Your task to perform on an android device: toggle javascript in the chrome app Image 0: 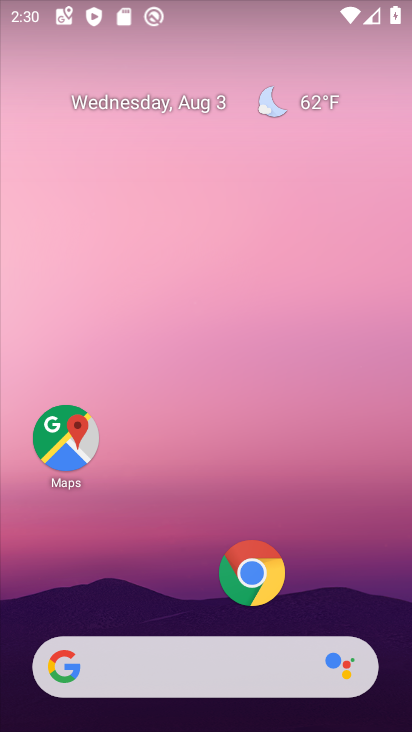
Step 0: click (261, 569)
Your task to perform on an android device: toggle javascript in the chrome app Image 1: 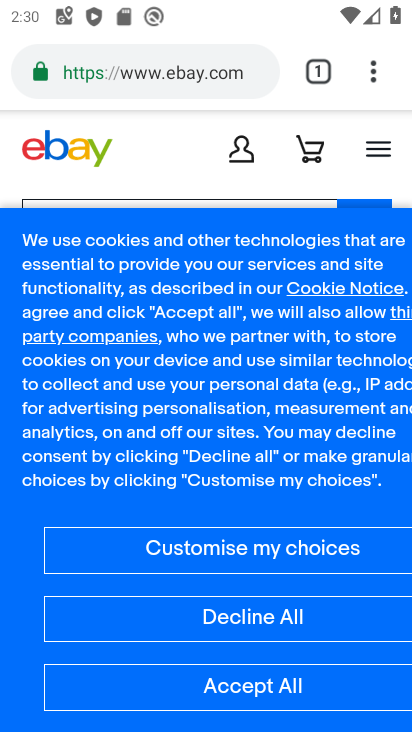
Step 1: click (373, 74)
Your task to perform on an android device: toggle javascript in the chrome app Image 2: 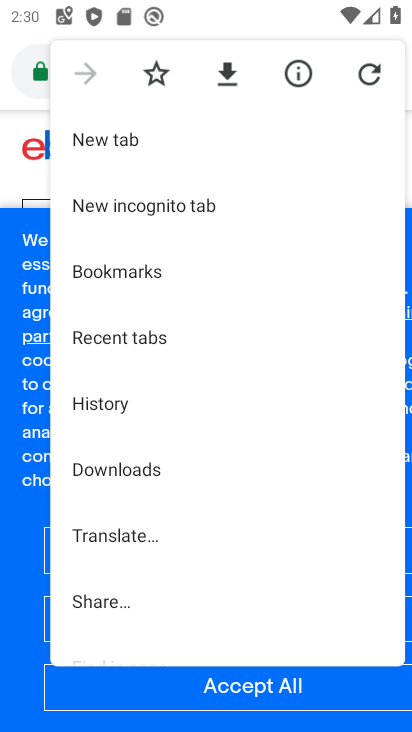
Step 2: drag from (138, 573) to (147, 311)
Your task to perform on an android device: toggle javascript in the chrome app Image 3: 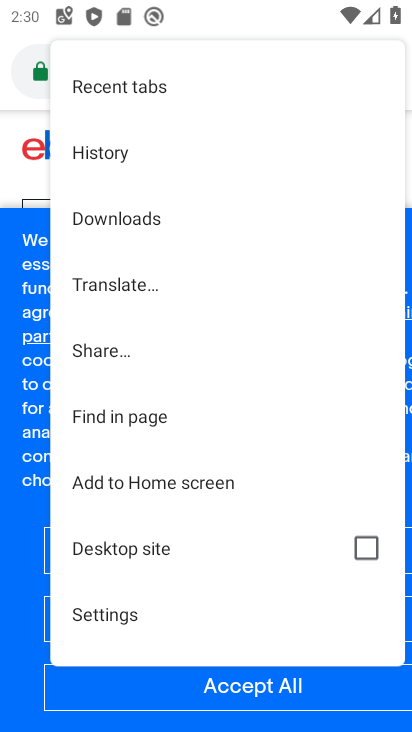
Step 3: click (134, 619)
Your task to perform on an android device: toggle javascript in the chrome app Image 4: 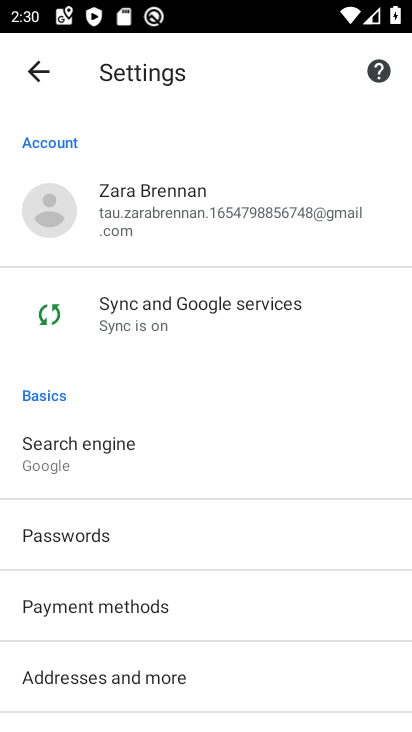
Step 4: drag from (174, 517) to (207, 213)
Your task to perform on an android device: toggle javascript in the chrome app Image 5: 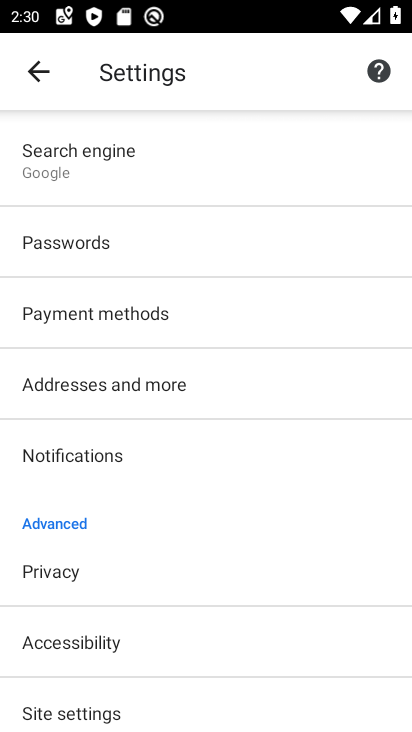
Step 5: click (85, 713)
Your task to perform on an android device: toggle javascript in the chrome app Image 6: 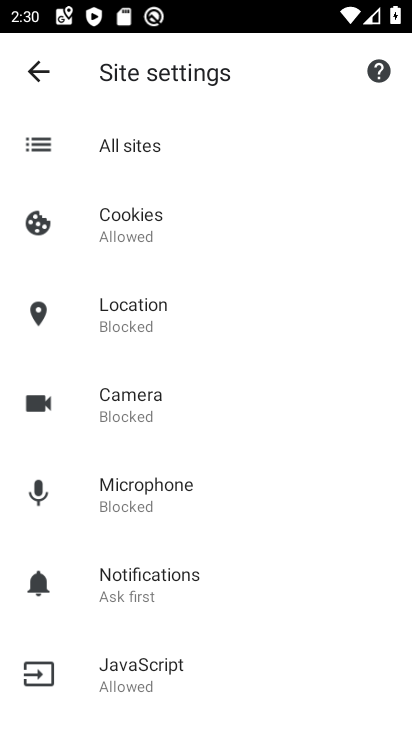
Step 6: click (150, 669)
Your task to perform on an android device: toggle javascript in the chrome app Image 7: 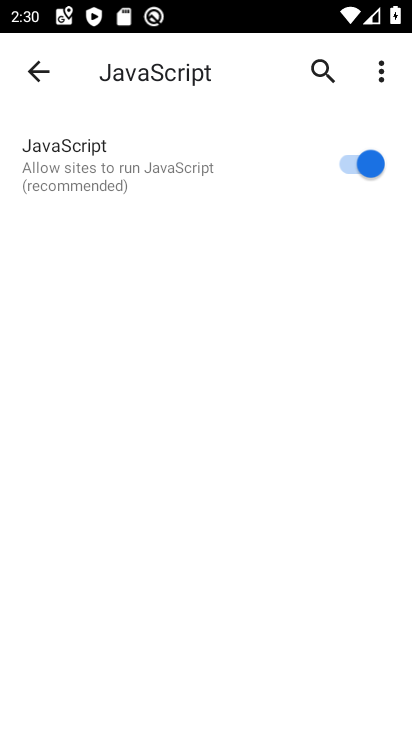
Step 7: click (342, 170)
Your task to perform on an android device: toggle javascript in the chrome app Image 8: 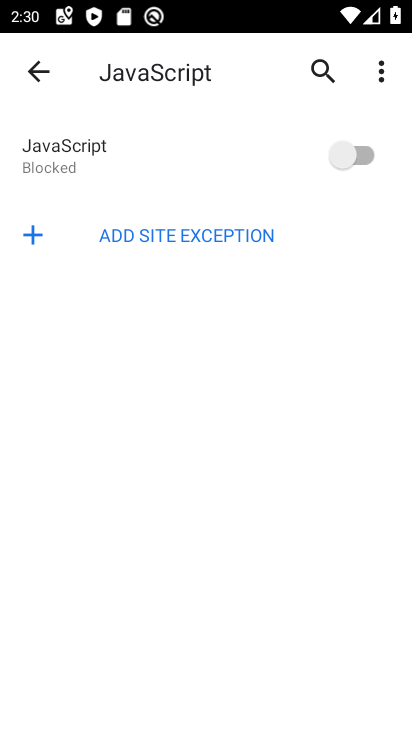
Step 8: task complete